Your task to perform on an android device: Open settings on Google Maps Image 0: 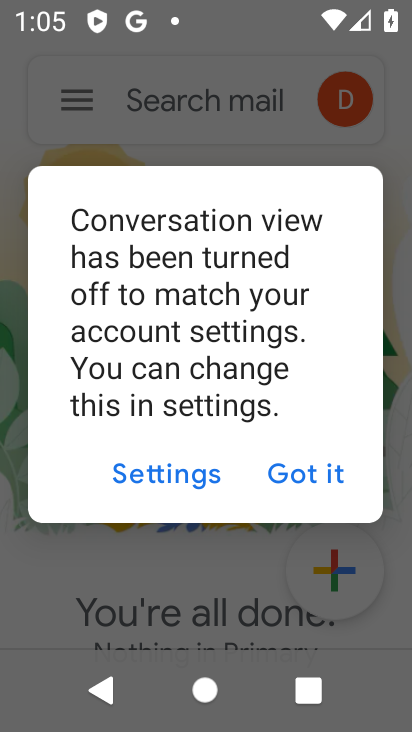
Step 0: click (308, 482)
Your task to perform on an android device: Open settings on Google Maps Image 1: 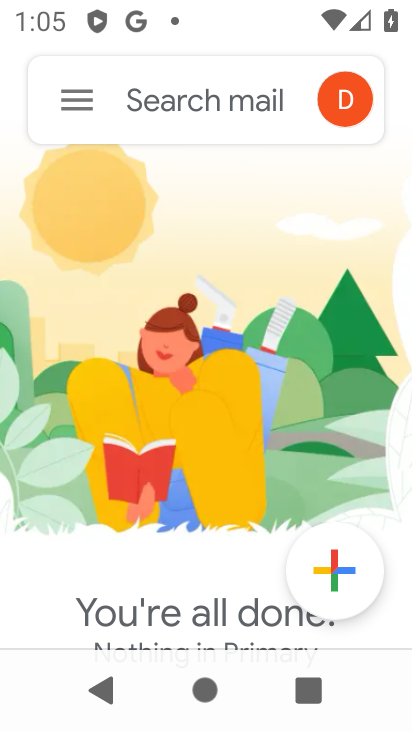
Step 1: drag from (195, 501) to (214, 288)
Your task to perform on an android device: Open settings on Google Maps Image 2: 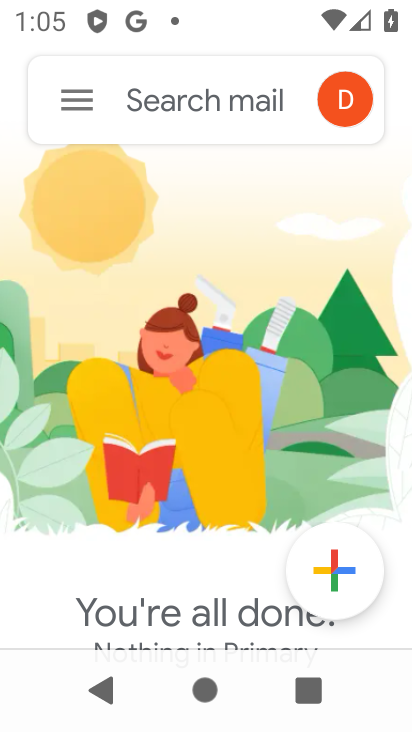
Step 2: press home button
Your task to perform on an android device: Open settings on Google Maps Image 3: 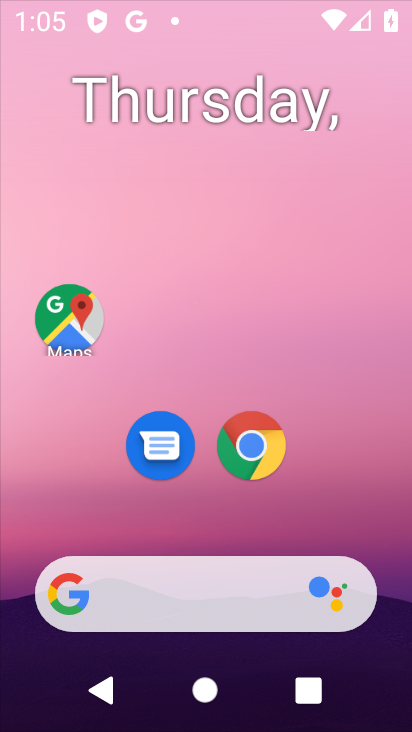
Step 3: drag from (168, 572) to (183, 204)
Your task to perform on an android device: Open settings on Google Maps Image 4: 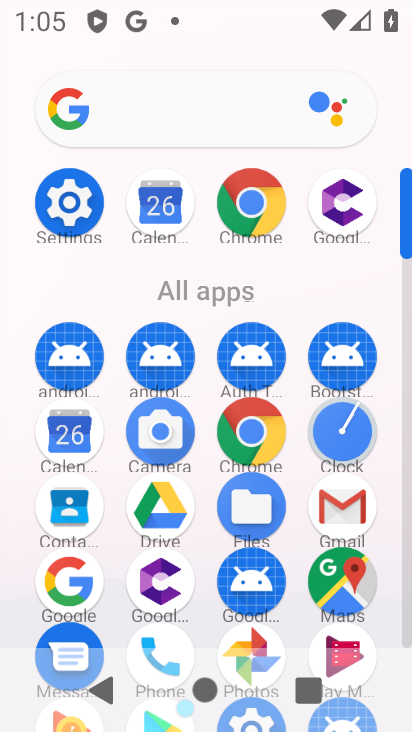
Step 4: click (74, 592)
Your task to perform on an android device: Open settings on Google Maps Image 5: 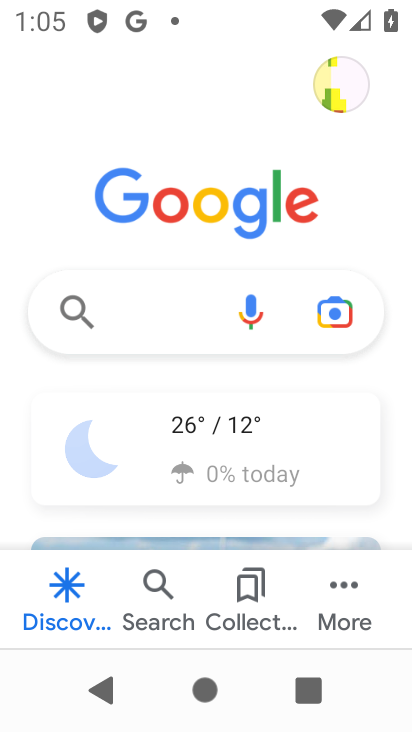
Step 5: press home button
Your task to perform on an android device: Open settings on Google Maps Image 6: 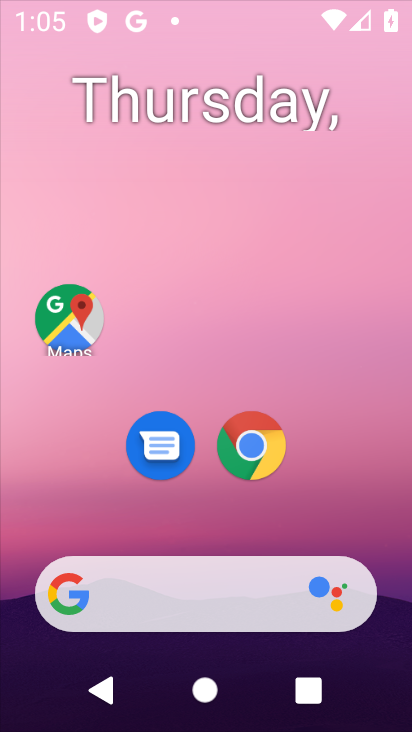
Step 6: drag from (263, 547) to (268, 197)
Your task to perform on an android device: Open settings on Google Maps Image 7: 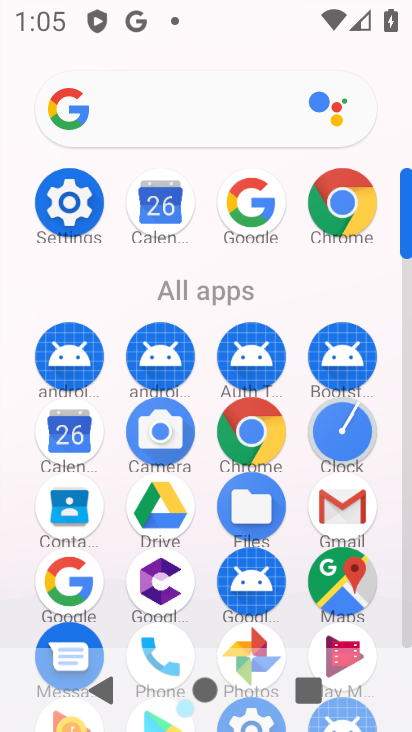
Step 7: click (348, 565)
Your task to perform on an android device: Open settings on Google Maps Image 8: 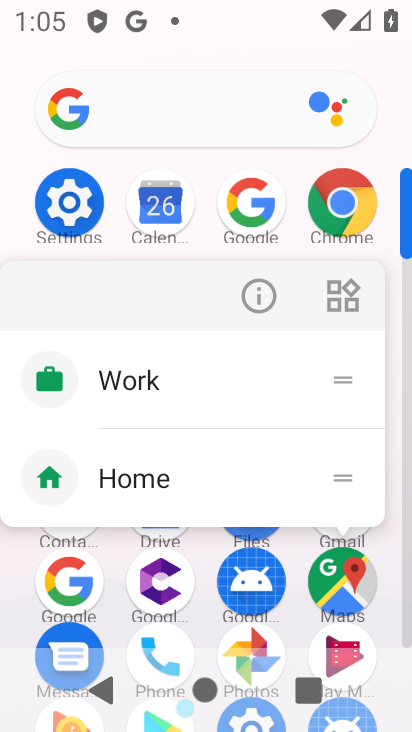
Step 8: click (266, 290)
Your task to perform on an android device: Open settings on Google Maps Image 9: 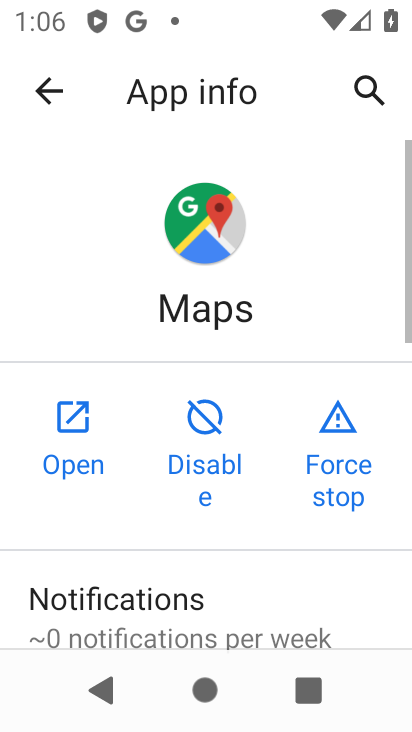
Step 9: click (81, 402)
Your task to perform on an android device: Open settings on Google Maps Image 10: 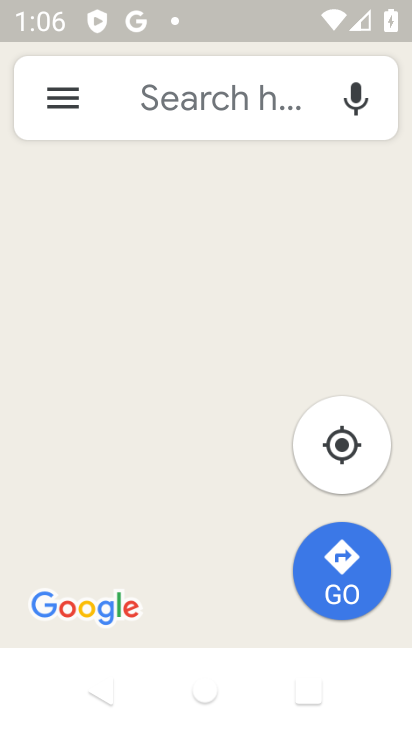
Step 10: click (55, 92)
Your task to perform on an android device: Open settings on Google Maps Image 11: 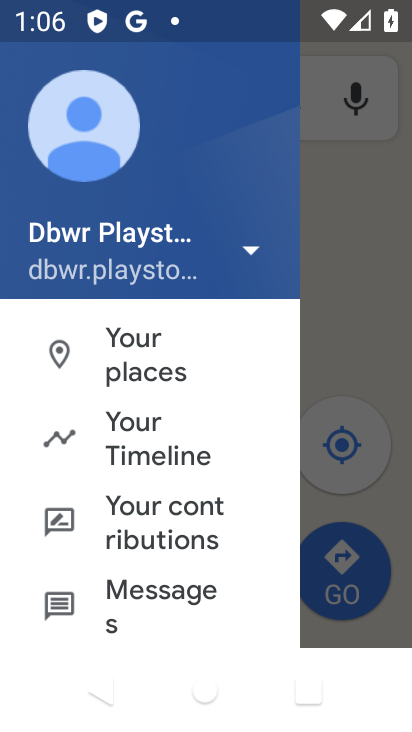
Step 11: drag from (170, 551) to (186, 244)
Your task to perform on an android device: Open settings on Google Maps Image 12: 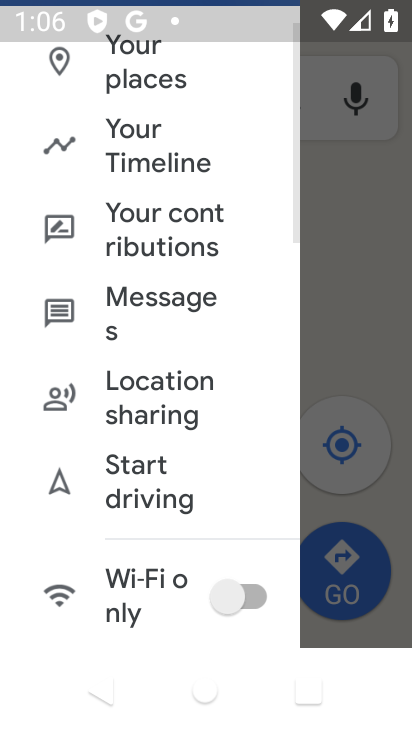
Step 12: drag from (145, 595) to (141, 102)
Your task to perform on an android device: Open settings on Google Maps Image 13: 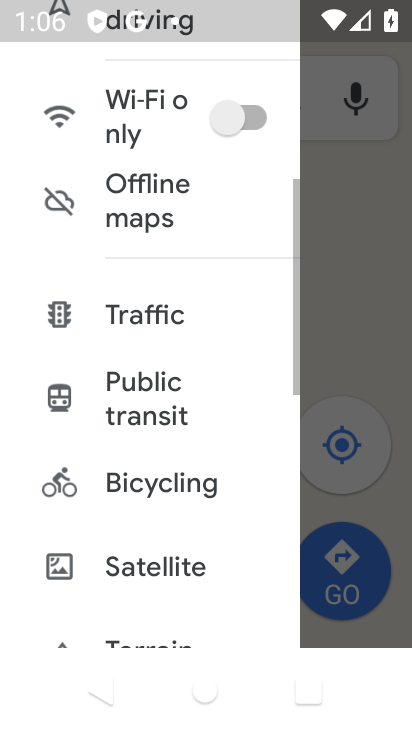
Step 13: drag from (141, 571) to (173, 134)
Your task to perform on an android device: Open settings on Google Maps Image 14: 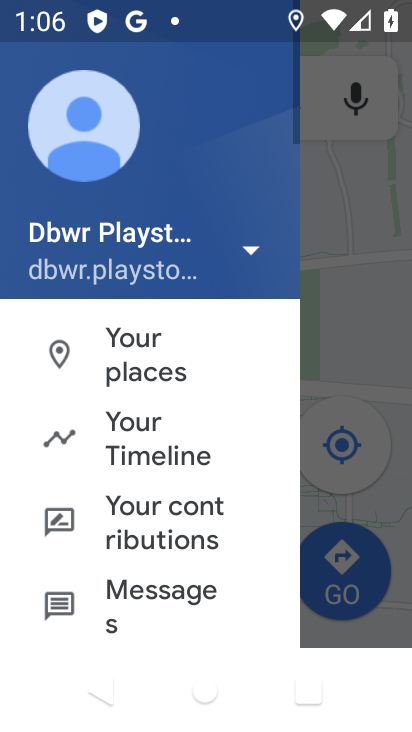
Step 14: drag from (154, 515) to (168, 61)
Your task to perform on an android device: Open settings on Google Maps Image 15: 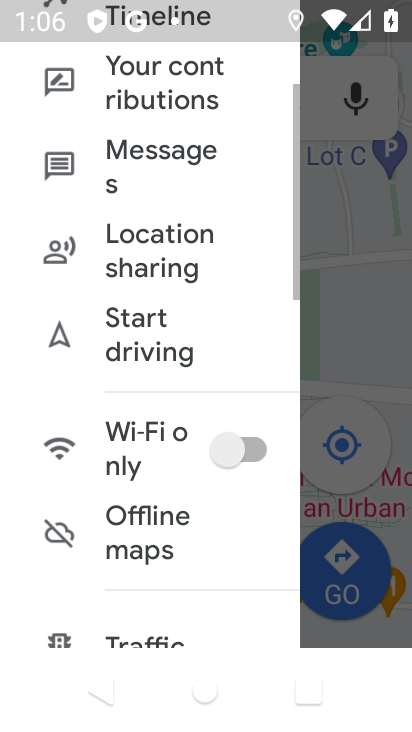
Step 15: drag from (150, 503) to (239, 15)
Your task to perform on an android device: Open settings on Google Maps Image 16: 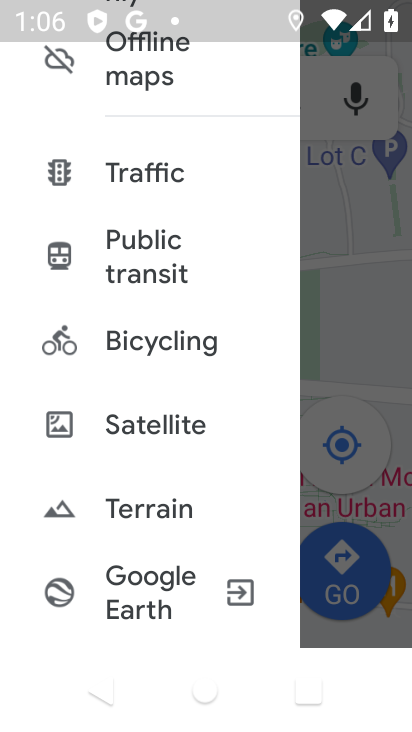
Step 16: drag from (145, 561) to (172, 95)
Your task to perform on an android device: Open settings on Google Maps Image 17: 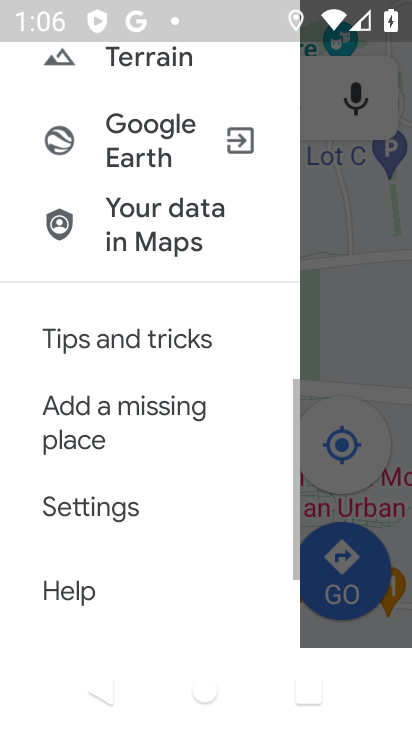
Step 17: click (98, 424)
Your task to perform on an android device: Open settings on Google Maps Image 18: 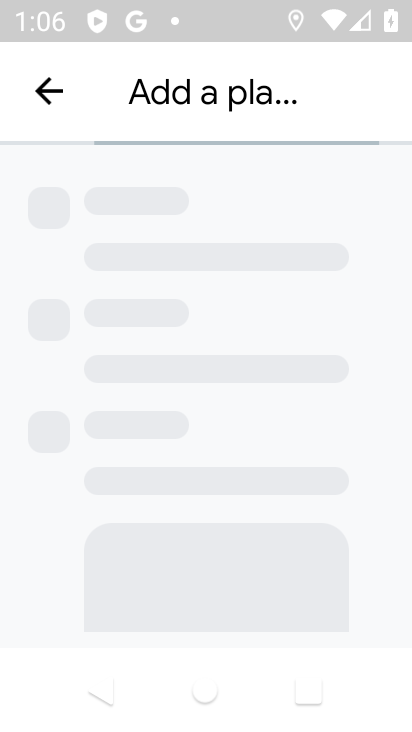
Step 18: click (66, 93)
Your task to perform on an android device: Open settings on Google Maps Image 19: 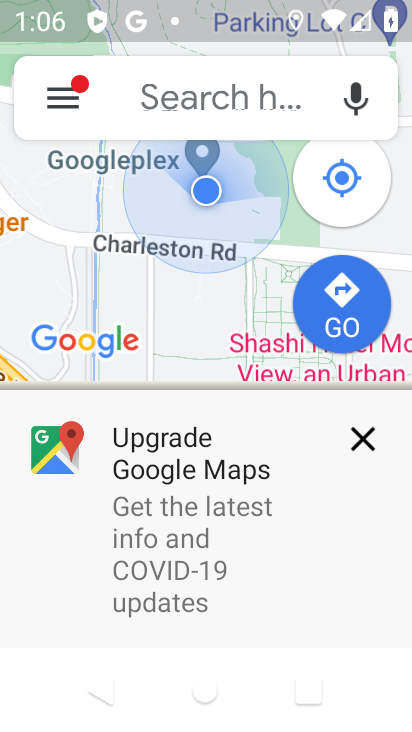
Step 19: click (56, 90)
Your task to perform on an android device: Open settings on Google Maps Image 20: 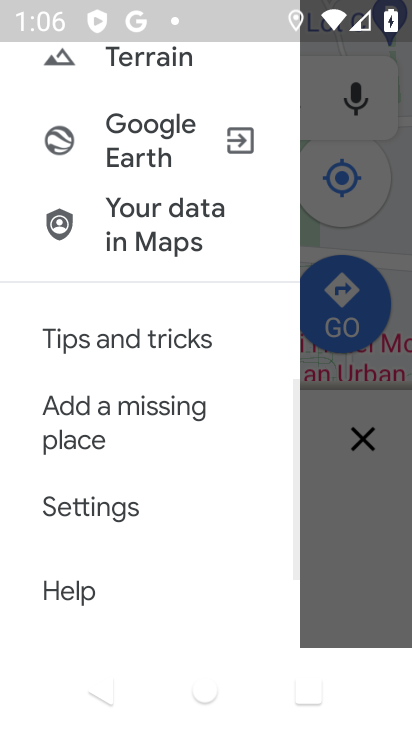
Step 20: click (112, 507)
Your task to perform on an android device: Open settings on Google Maps Image 21: 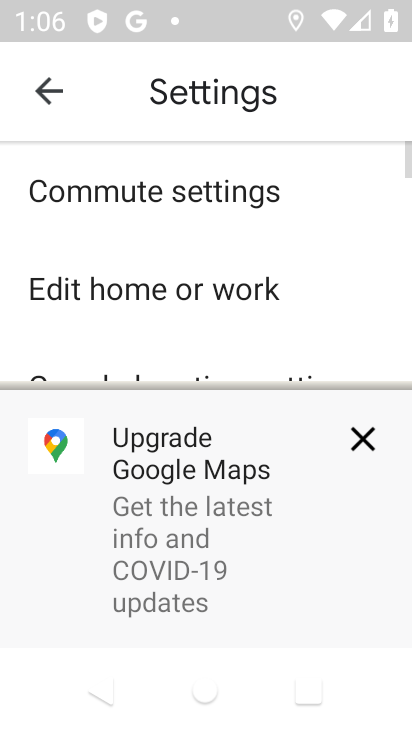
Step 21: task complete